Your task to perform on an android device: Go to internet settings Image 0: 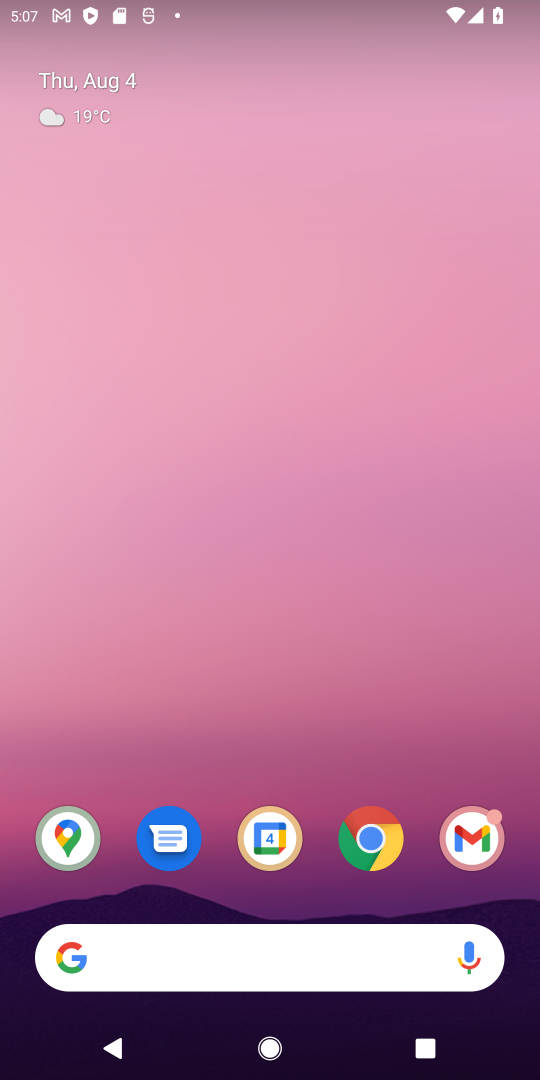
Step 0: drag from (312, 878) to (483, 1)
Your task to perform on an android device: Go to internet settings Image 1: 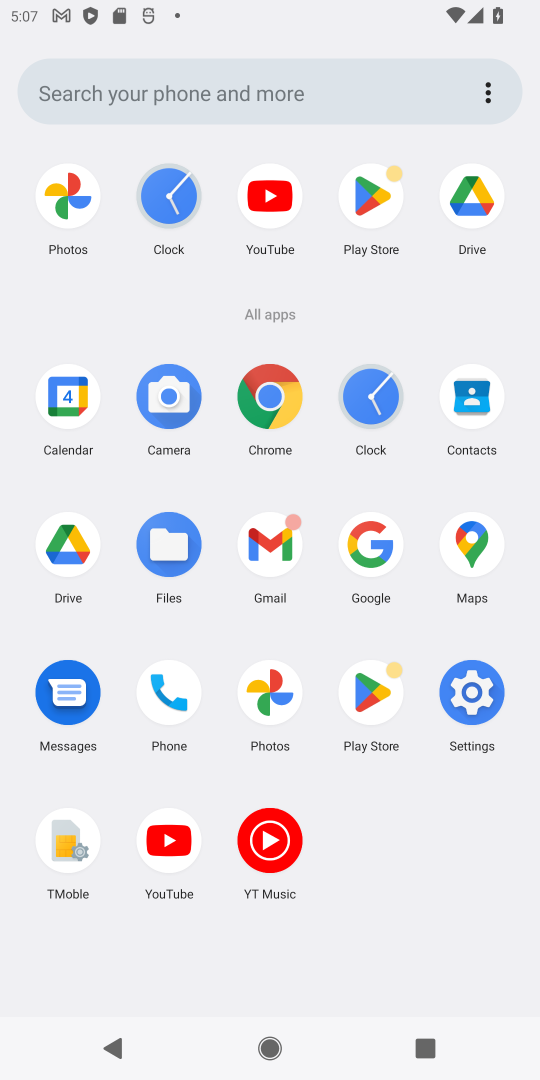
Step 1: click (478, 703)
Your task to perform on an android device: Go to internet settings Image 2: 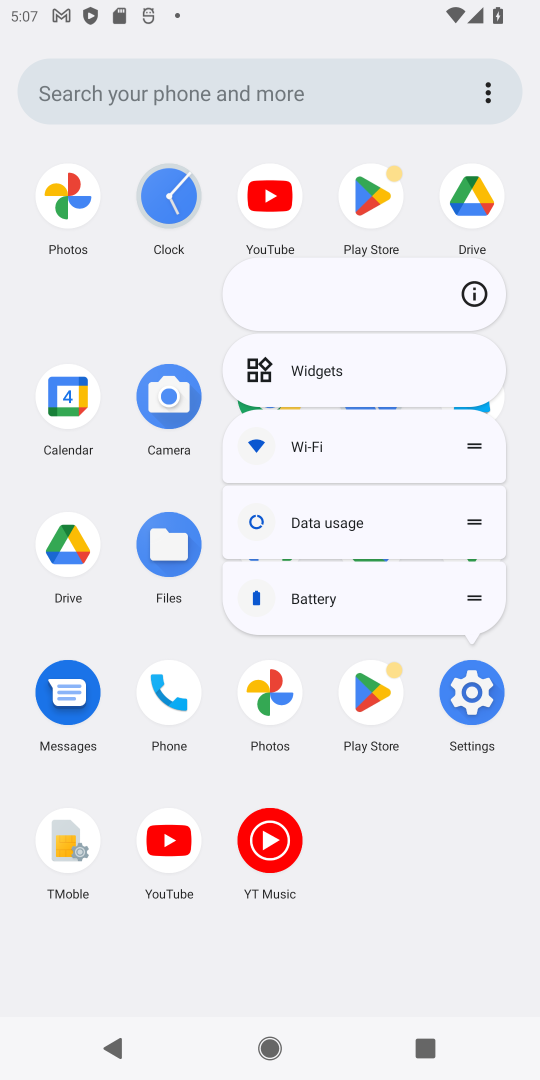
Step 2: click (482, 685)
Your task to perform on an android device: Go to internet settings Image 3: 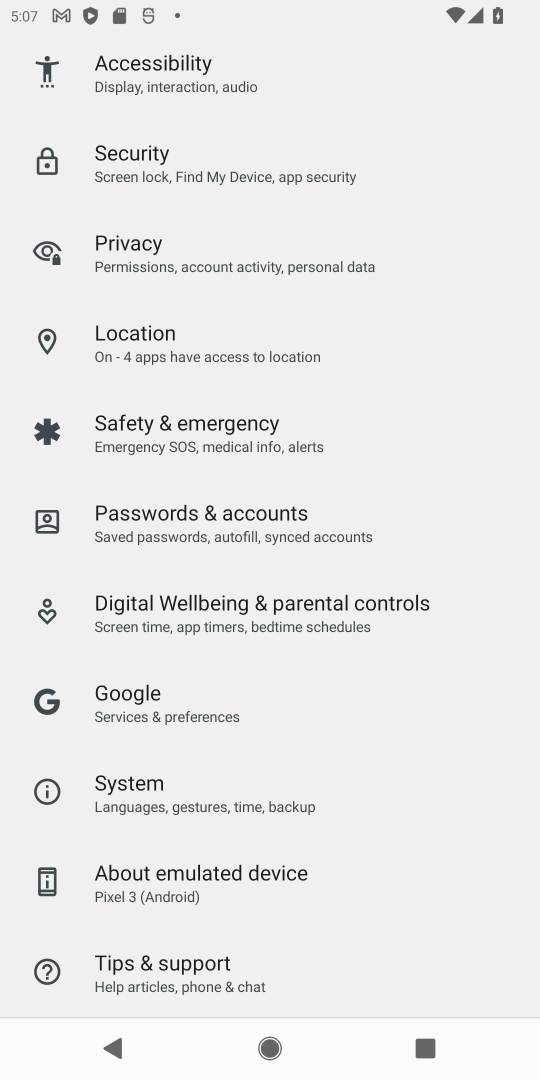
Step 3: drag from (326, 297) to (333, 837)
Your task to perform on an android device: Go to internet settings Image 4: 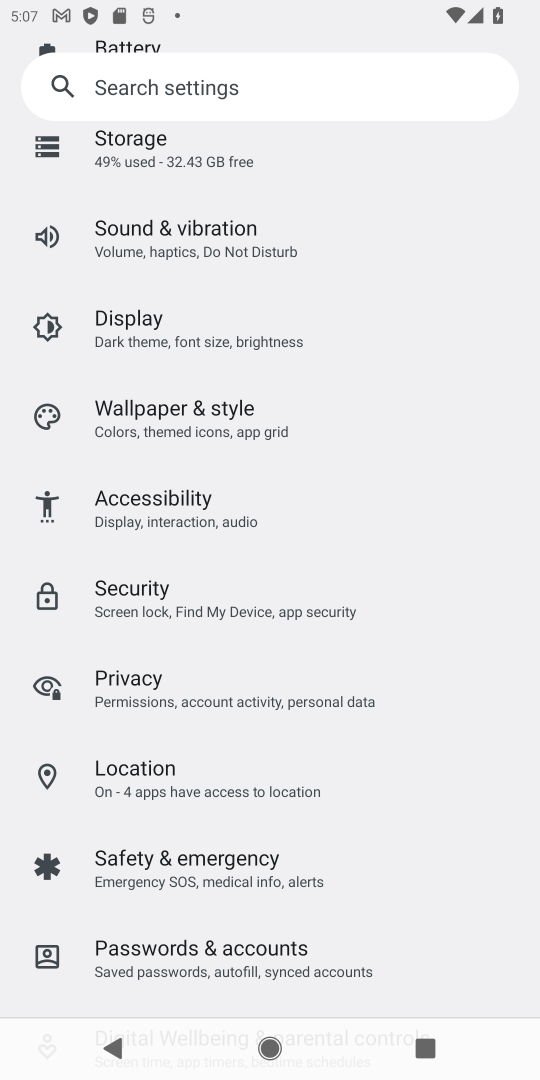
Step 4: drag from (229, 277) to (289, 824)
Your task to perform on an android device: Go to internet settings Image 5: 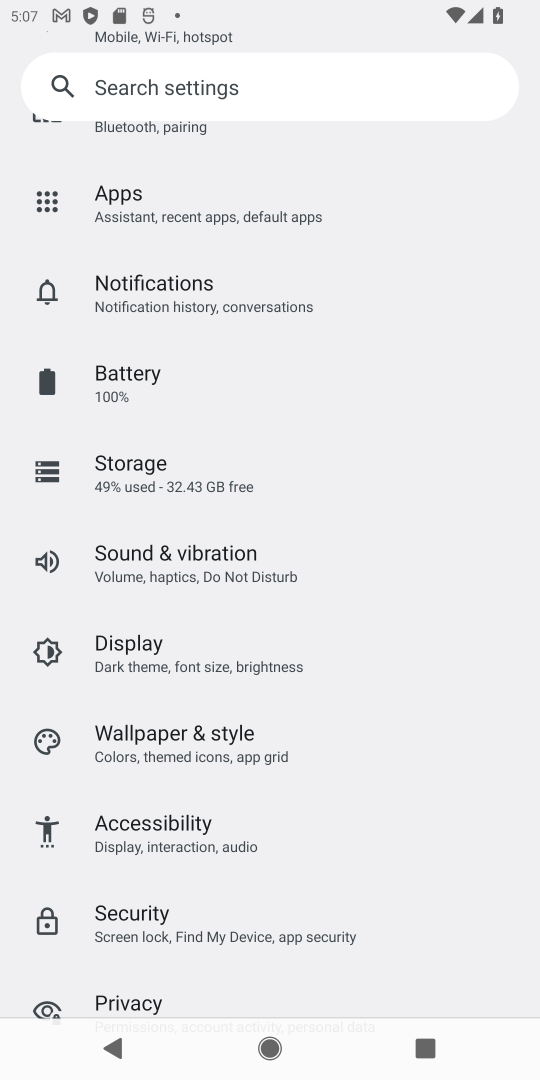
Step 5: drag from (237, 336) to (271, 928)
Your task to perform on an android device: Go to internet settings Image 6: 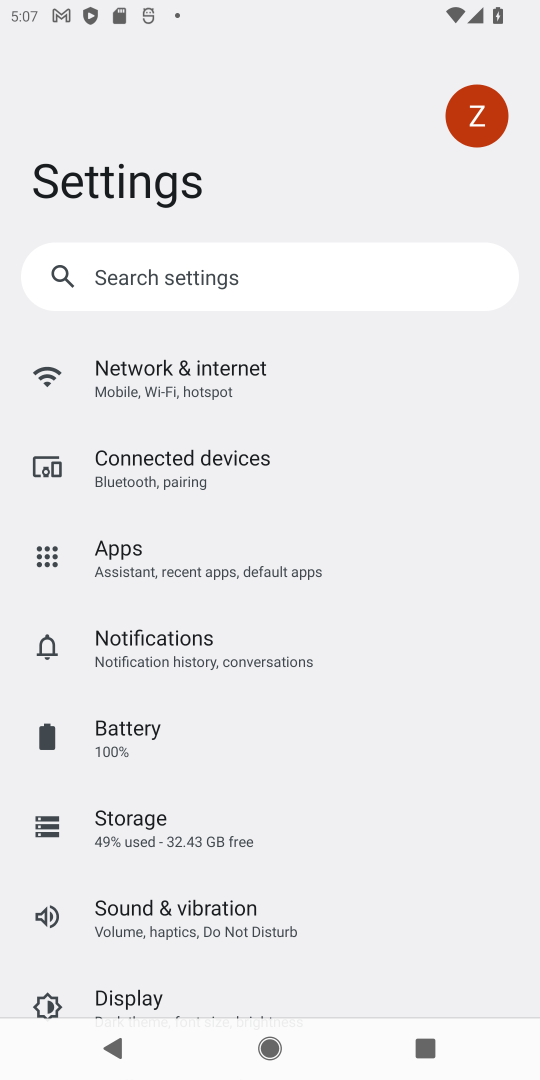
Step 6: click (195, 365)
Your task to perform on an android device: Go to internet settings Image 7: 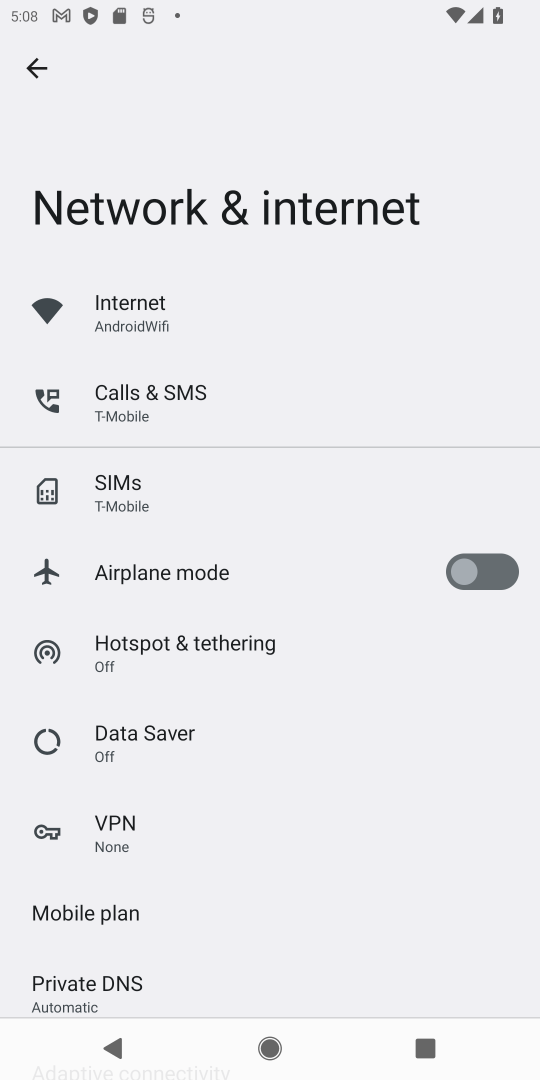
Step 7: click (172, 303)
Your task to perform on an android device: Go to internet settings Image 8: 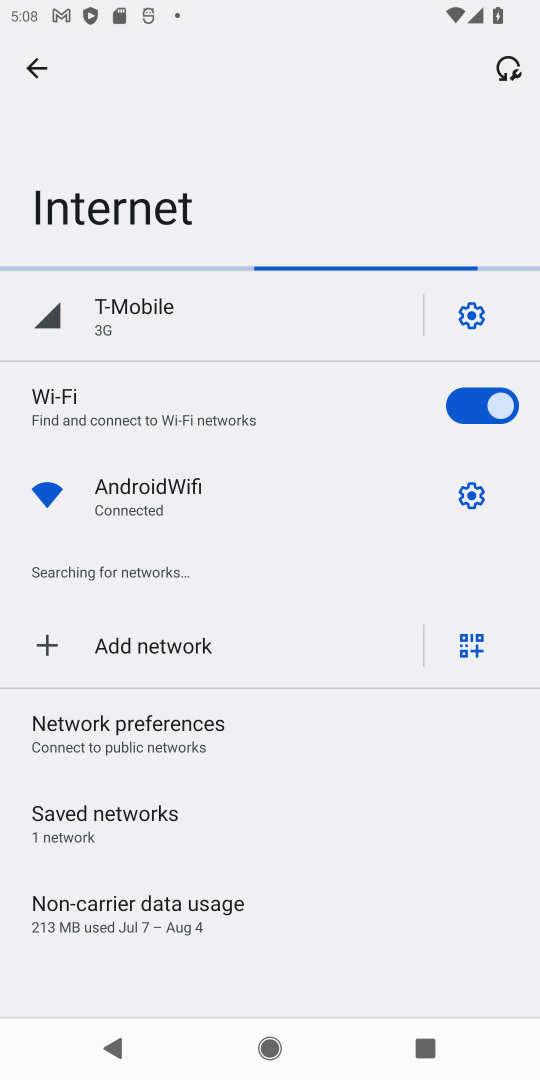
Step 8: task complete